Your task to perform on an android device: Go to notification settings Image 0: 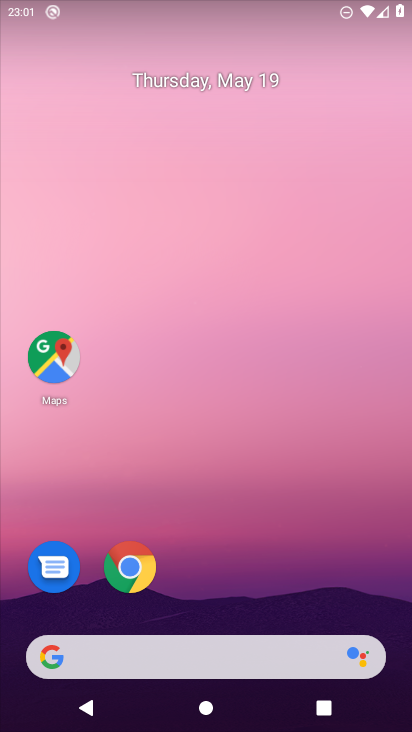
Step 0: drag from (217, 612) to (228, 32)
Your task to perform on an android device: Go to notification settings Image 1: 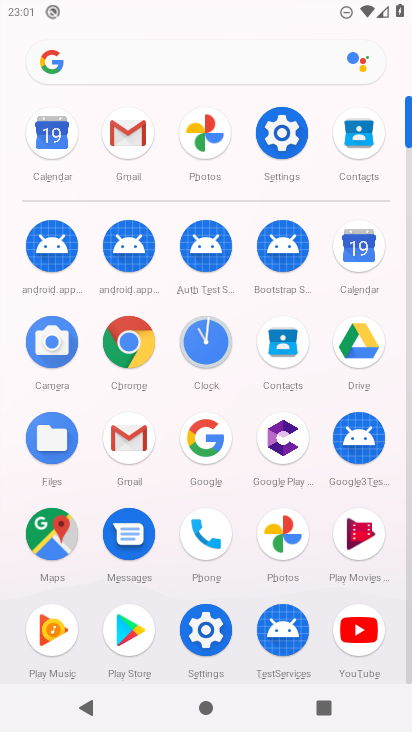
Step 1: click (280, 132)
Your task to perform on an android device: Go to notification settings Image 2: 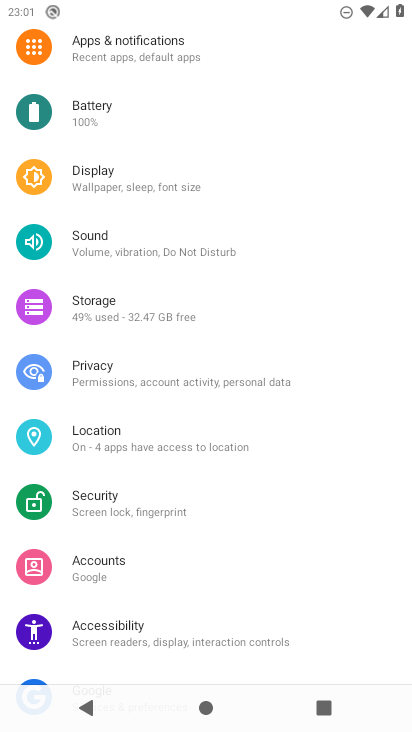
Step 2: click (154, 48)
Your task to perform on an android device: Go to notification settings Image 3: 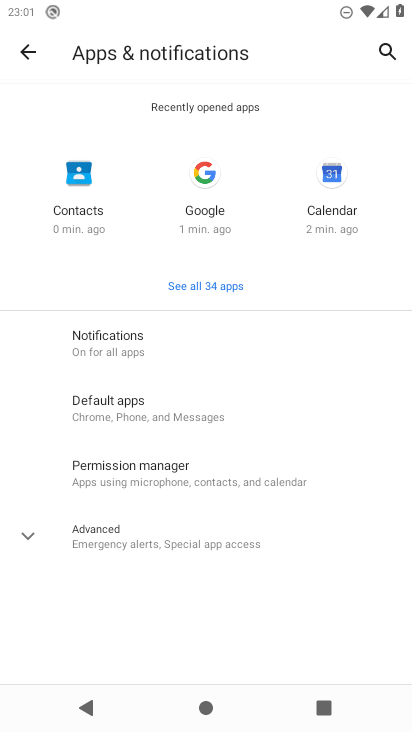
Step 3: click (162, 343)
Your task to perform on an android device: Go to notification settings Image 4: 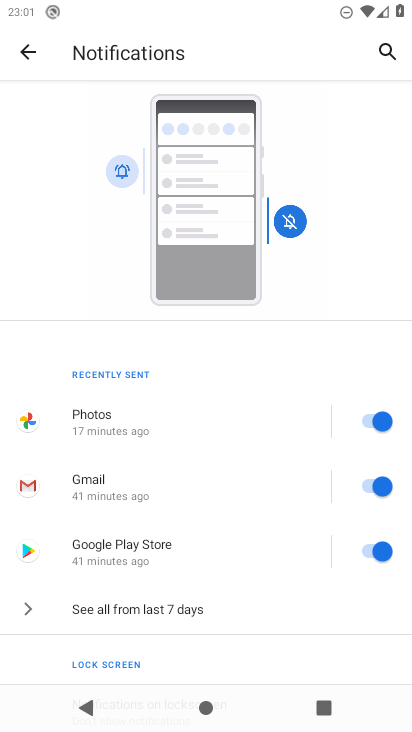
Step 4: drag from (186, 596) to (193, 380)
Your task to perform on an android device: Go to notification settings Image 5: 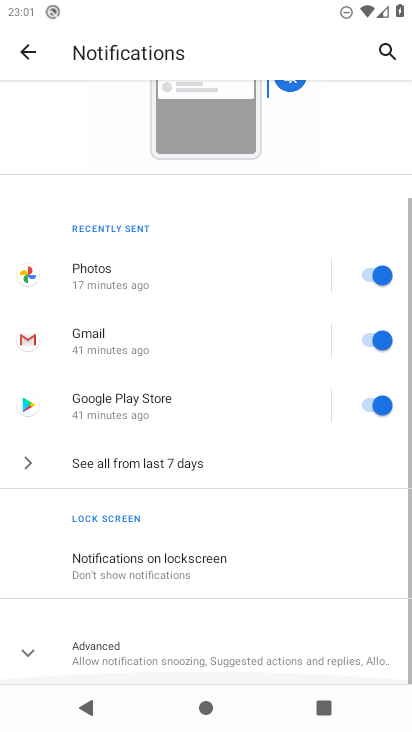
Step 5: drag from (207, 239) to (210, 185)
Your task to perform on an android device: Go to notification settings Image 6: 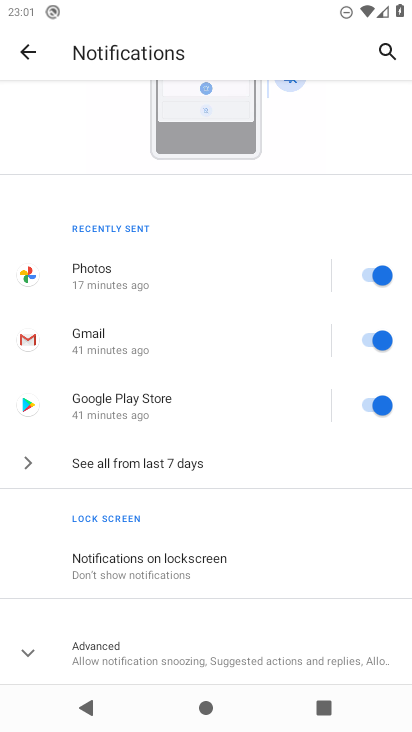
Step 6: click (88, 640)
Your task to perform on an android device: Go to notification settings Image 7: 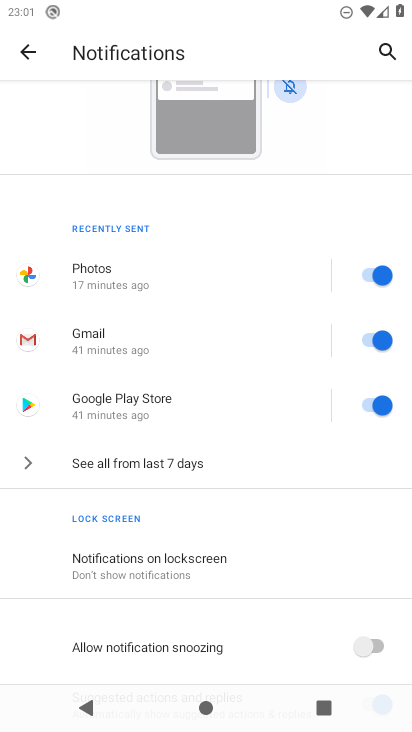
Step 7: task complete